Your task to perform on an android device: open sync settings in chrome Image 0: 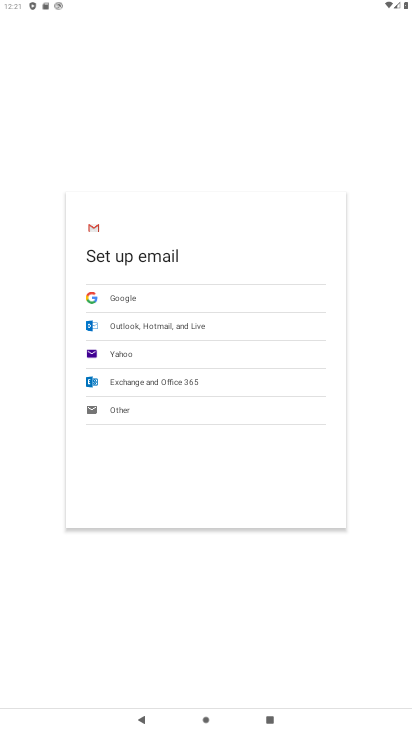
Step 0: press home button
Your task to perform on an android device: open sync settings in chrome Image 1: 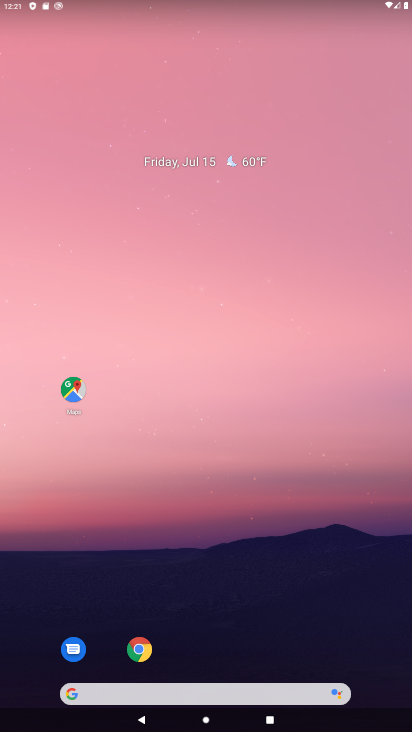
Step 1: drag from (225, 655) to (186, 194)
Your task to perform on an android device: open sync settings in chrome Image 2: 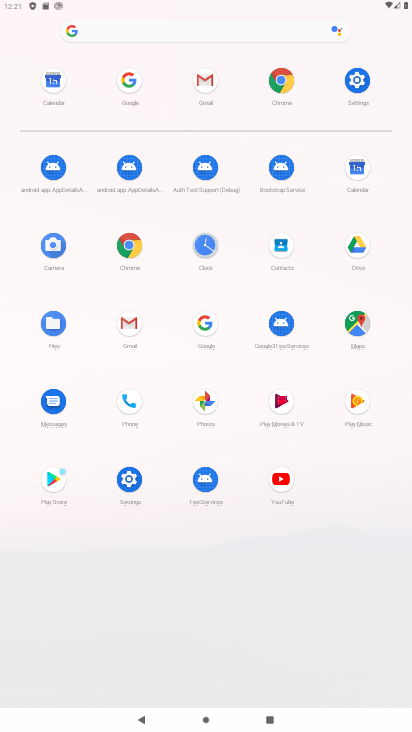
Step 2: click (276, 71)
Your task to perform on an android device: open sync settings in chrome Image 3: 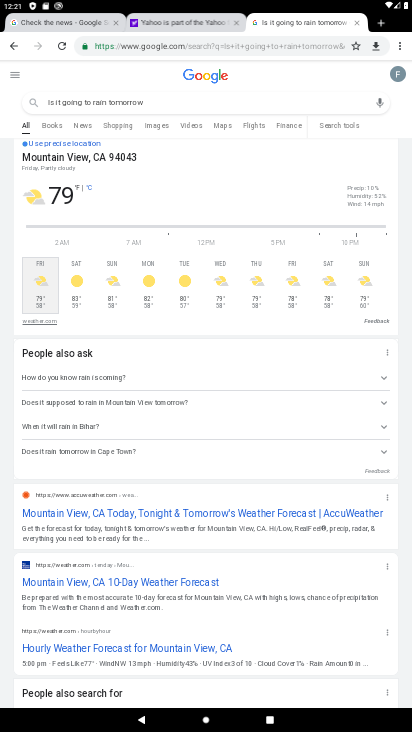
Step 3: click (394, 45)
Your task to perform on an android device: open sync settings in chrome Image 4: 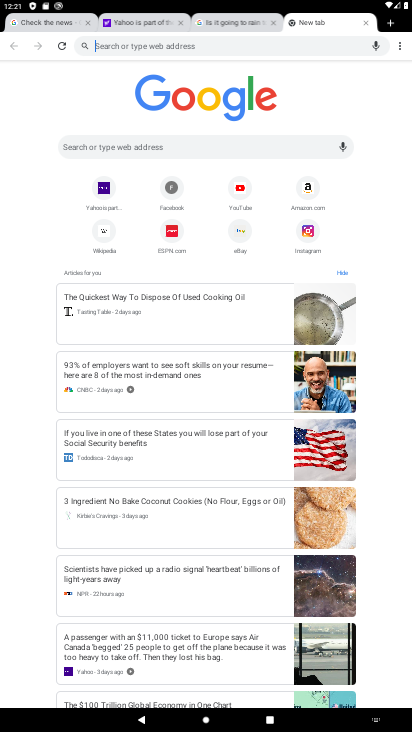
Step 4: click (405, 40)
Your task to perform on an android device: open sync settings in chrome Image 5: 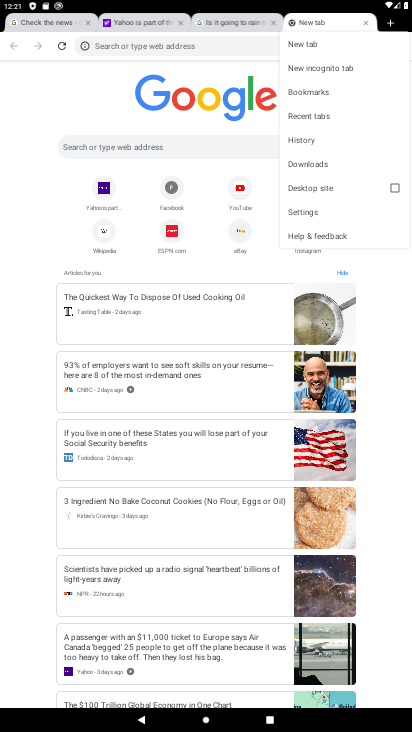
Step 5: click (314, 211)
Your task to perform on an android device: open sync settings in chrome Image 6: 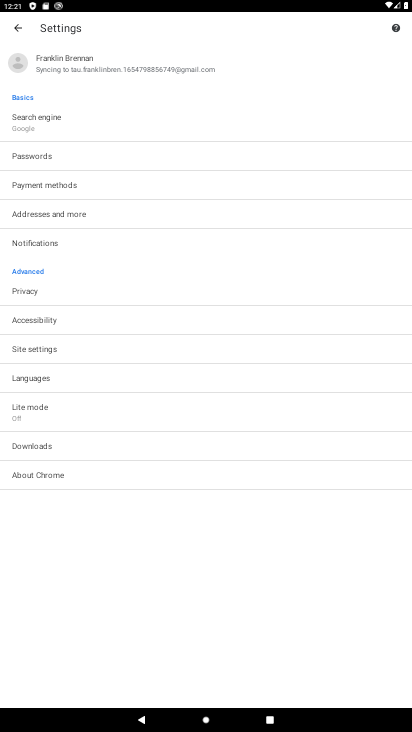
Step 6: click (87, 63)
Your task to perform on an android device: open sync settings in chrome Image 7: 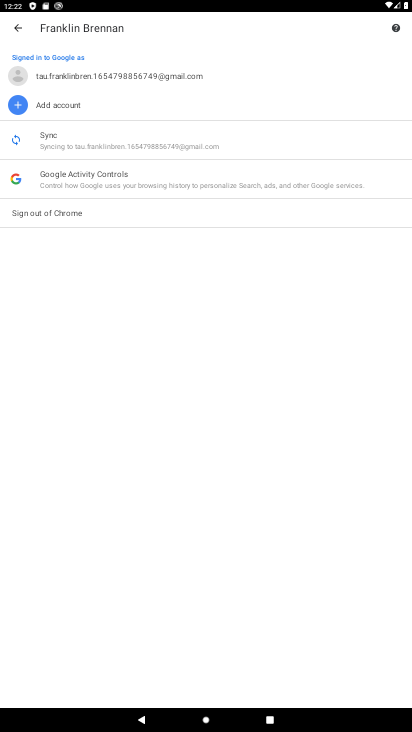
Step 7: click (62, 128)
Your task to perform on an android device: open sync settings in chrome Image 8: 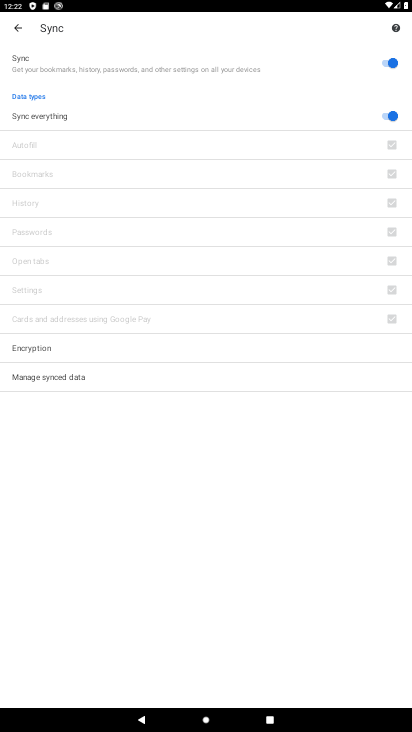
Step 8: task complete